Your task to perform on an android device: Open the calendar app, open the side menu, and click the "Day" option Image 0: 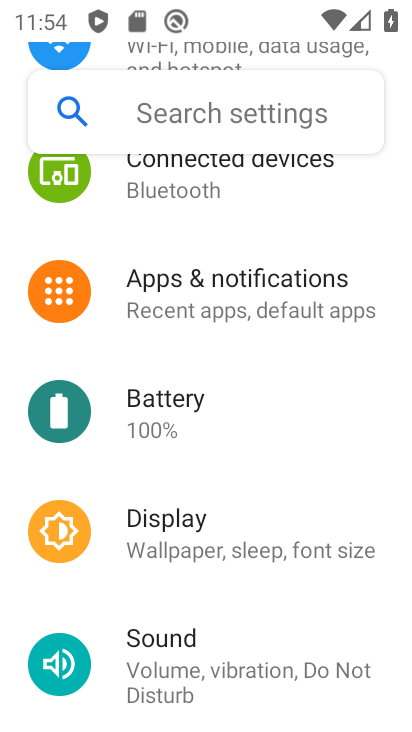
Step 0: press home button
Your task to perform on an android device: Open the calendar app, open the side menu, and click the "Day" option Image 1: 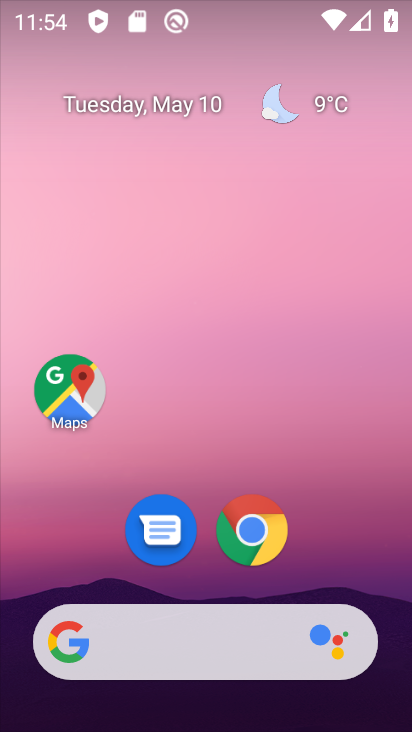
Step 1: drag from (338, 560) to (359, 15)
Your task to perform on an android device: Open the calendar app, open the side menu, and click the "Day" option Image 2: 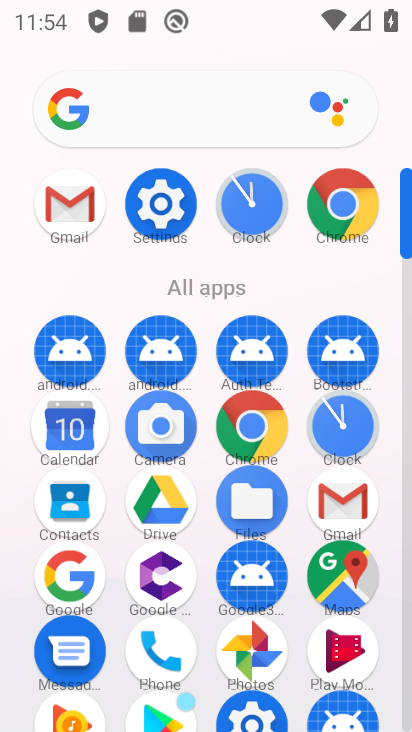
Step 2: click (52, 423)
Your task to perform on an android device: Open the calendar app, open the side menu, and click the "Day" option Image 3: 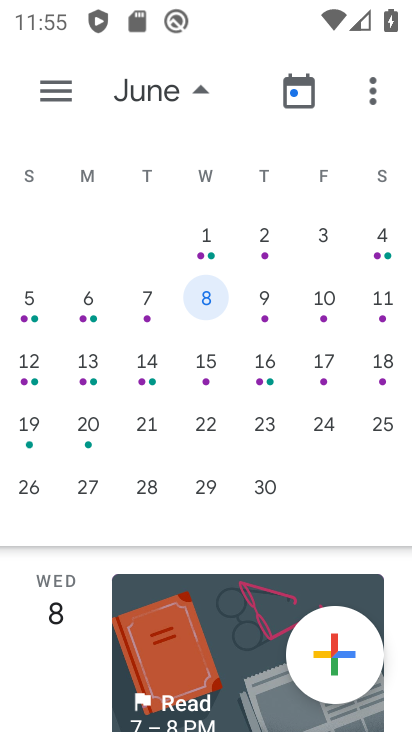
Step 3: click (54, 72)
Your task to perform on an android device: Open the calendar app, open the side menu, and click the "Day" option Image 4: 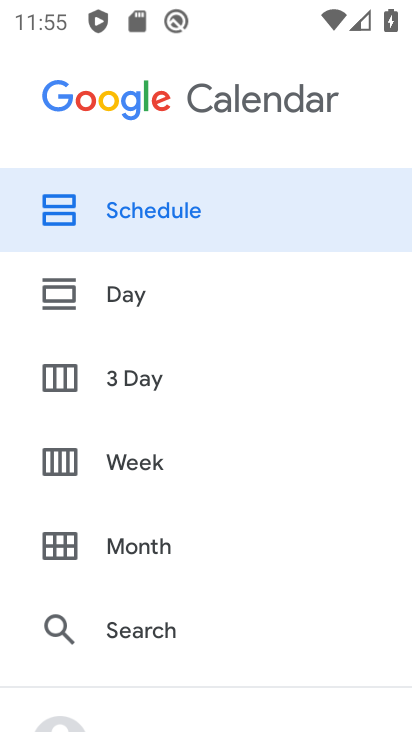
Step 4: click (165, 297)
Your task to perform on an android device: Open the calendar app, open the side menu, and click the "Day" option Image 5: 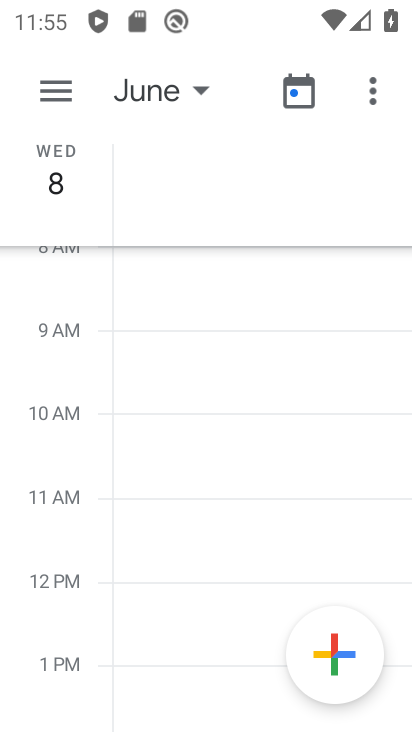
Step 5: task complete